Your task to perform on an android device: View the shopping cart on newegg. Add "logitech g903" to the cart on newegg Image 0: 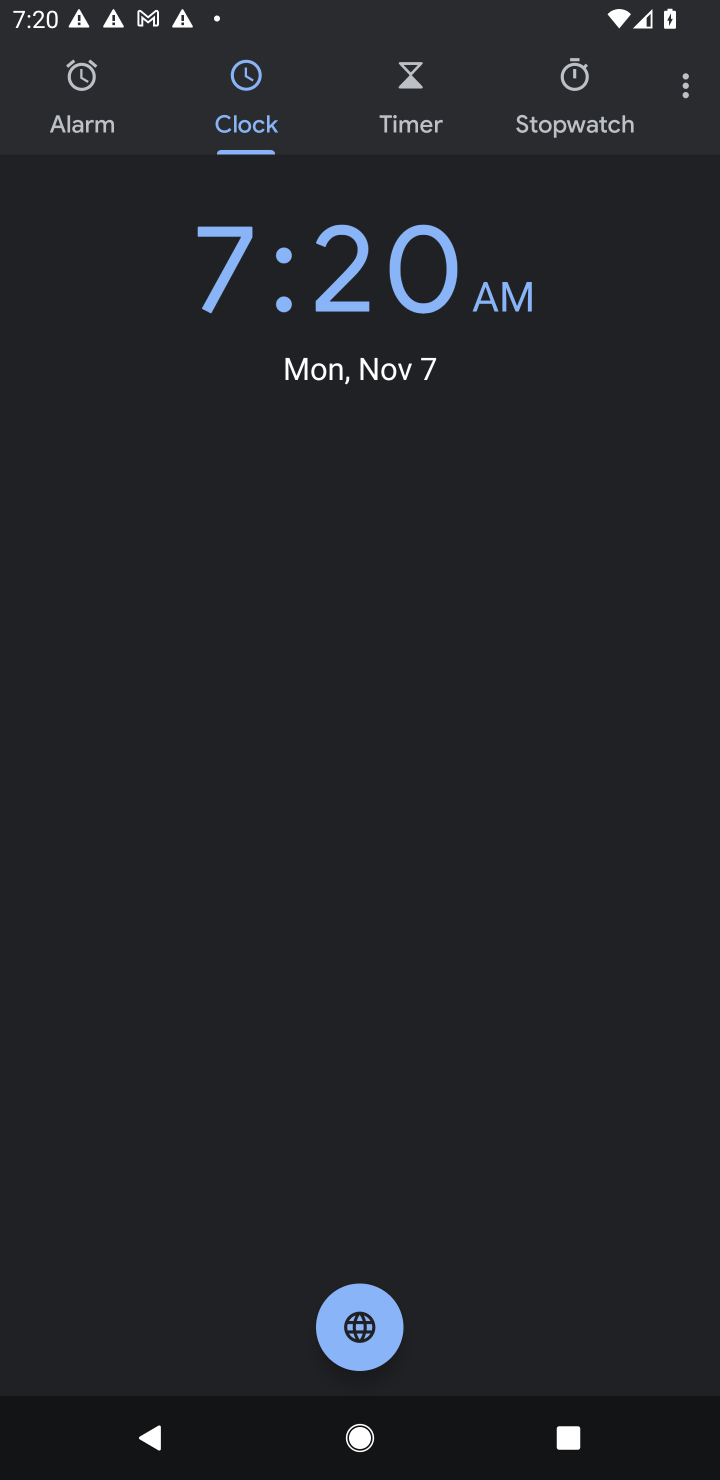
Step 0: press home button
Your task to perform on an android device: View the shopping cart on newegg. Add "logitech g903" to the cart on newegg Image 1: 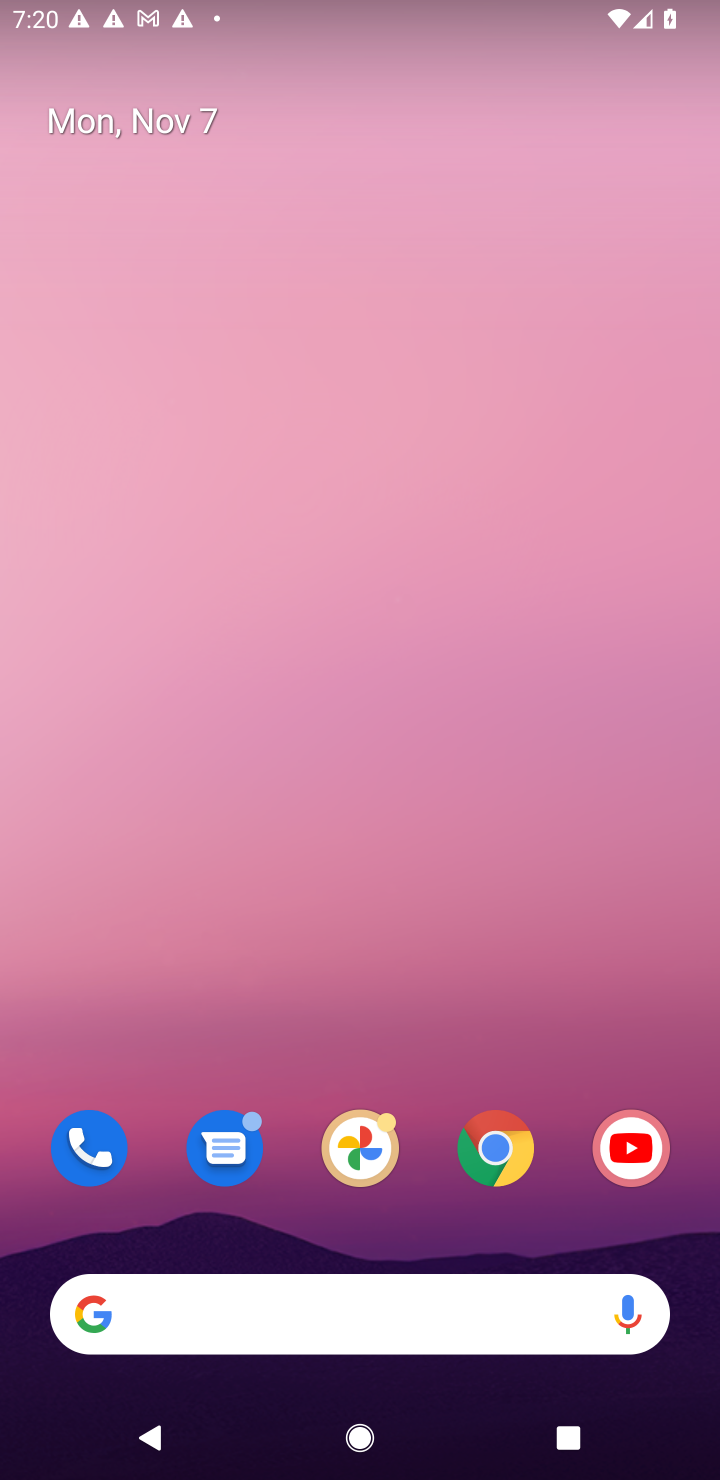
Step 1: click (513, 1151)
Your task to perform on an android device: View the shopping cart on newegg. Add "logitech g903" to the cart on newegg Image 2: 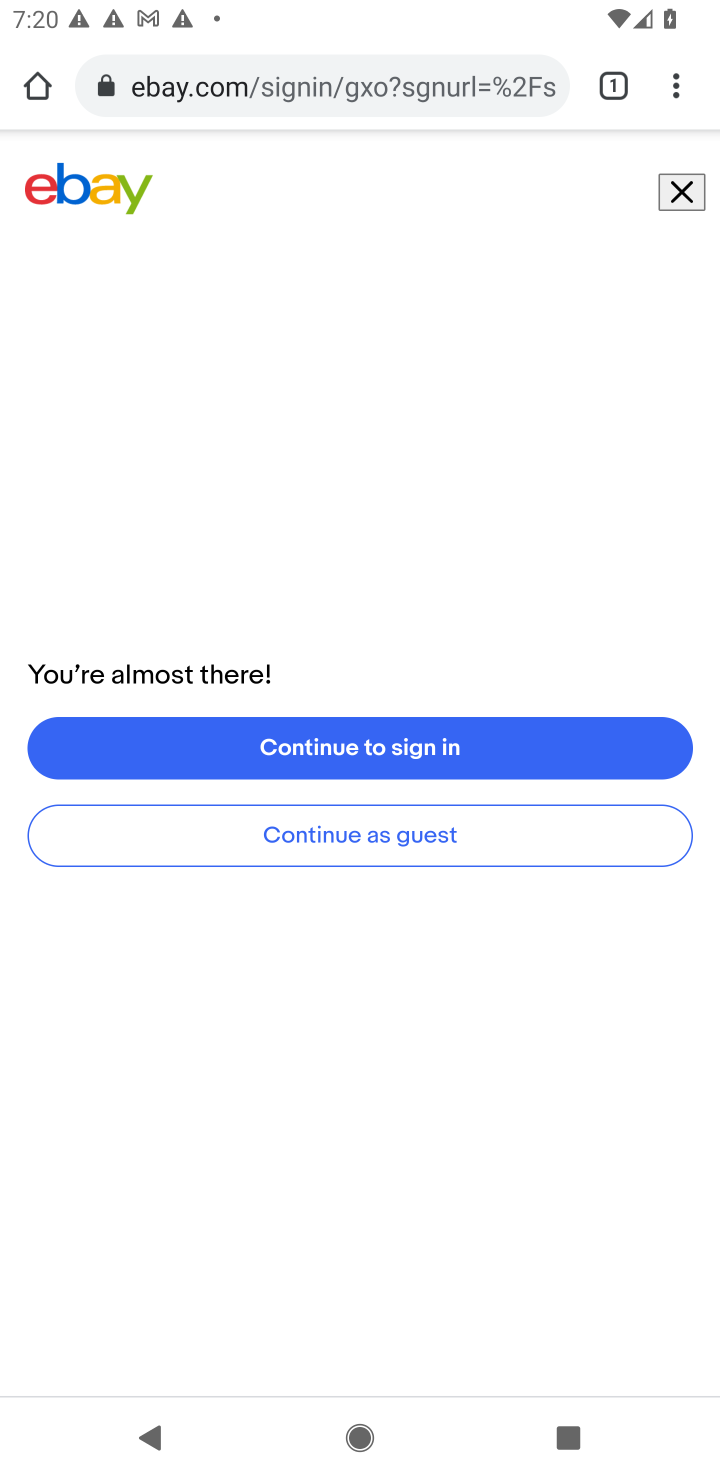
Step 2: click (394, 78)
Your task to perform on an android device: View the shopping cart on newegg. Add "logitech g903" to the cart on newegg Image 3: 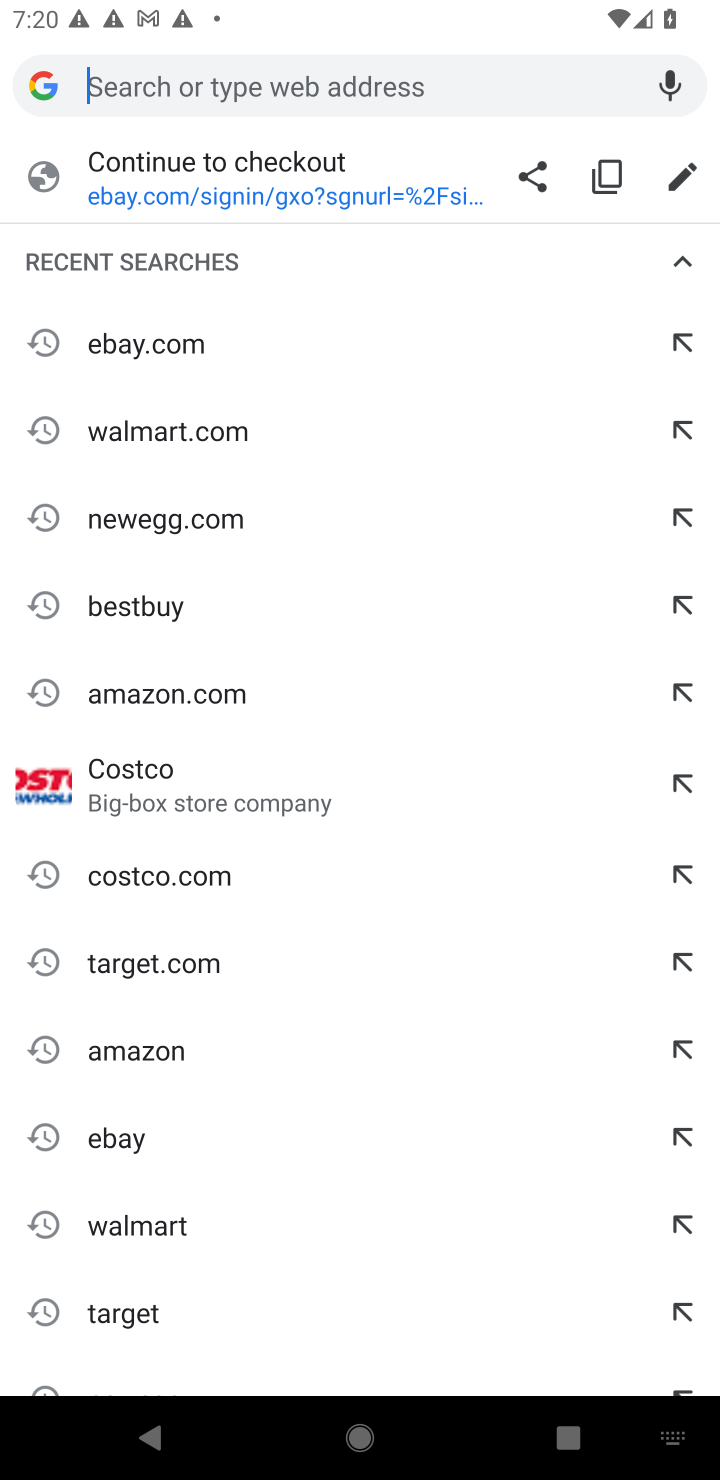
Step 3: click (207, 518)
Your task to perform on an android device: View the shopping cart on newegg. Add "logitech g903" to the cart on newegg Image 4: 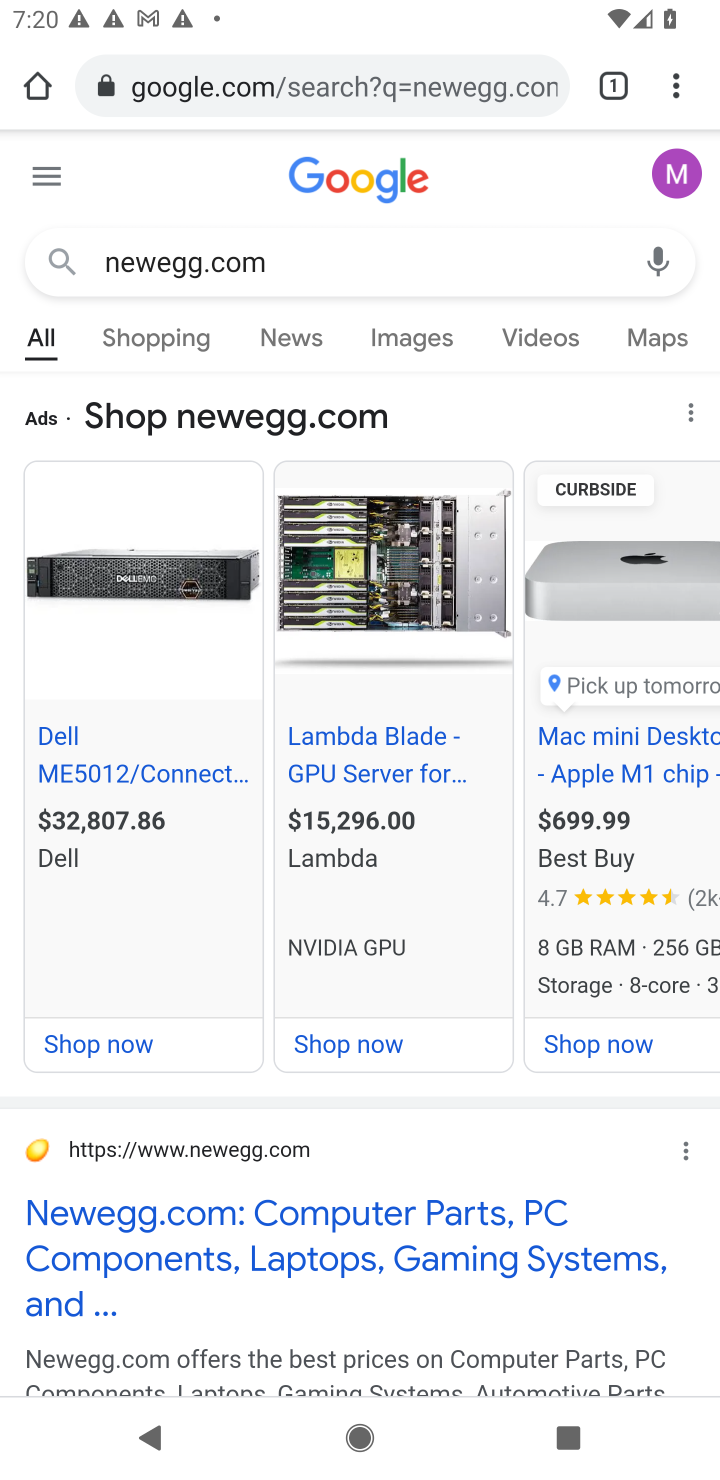
Step 4: click (236, 1148)
Your task to perform on an android device: View the shopping cart on newegg. Add "logitech g903" to the cart on newegg Image 5: 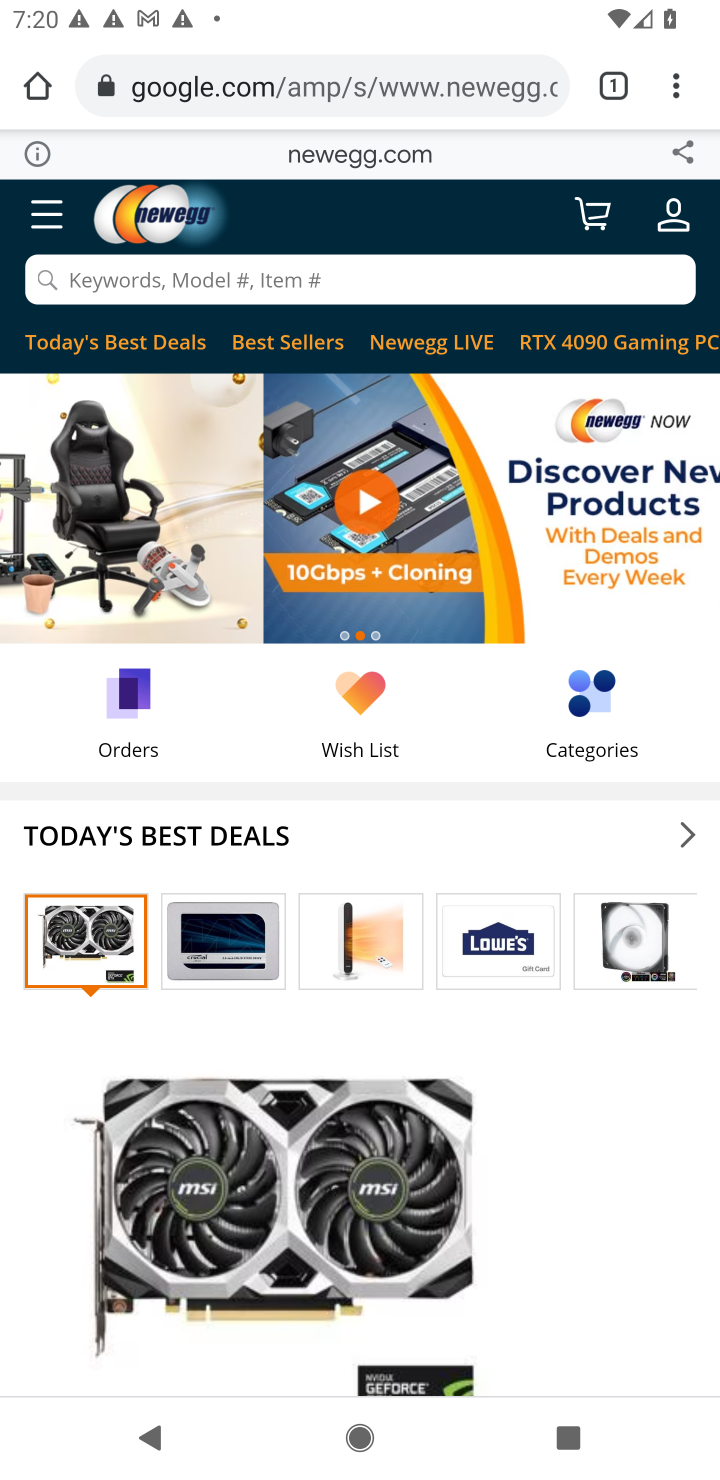
Step 5: click (442, 278)
Your task to perform on an android device: View the shopping cart on newegg. Add "logitech g903" to the cart on newegg Image 6: 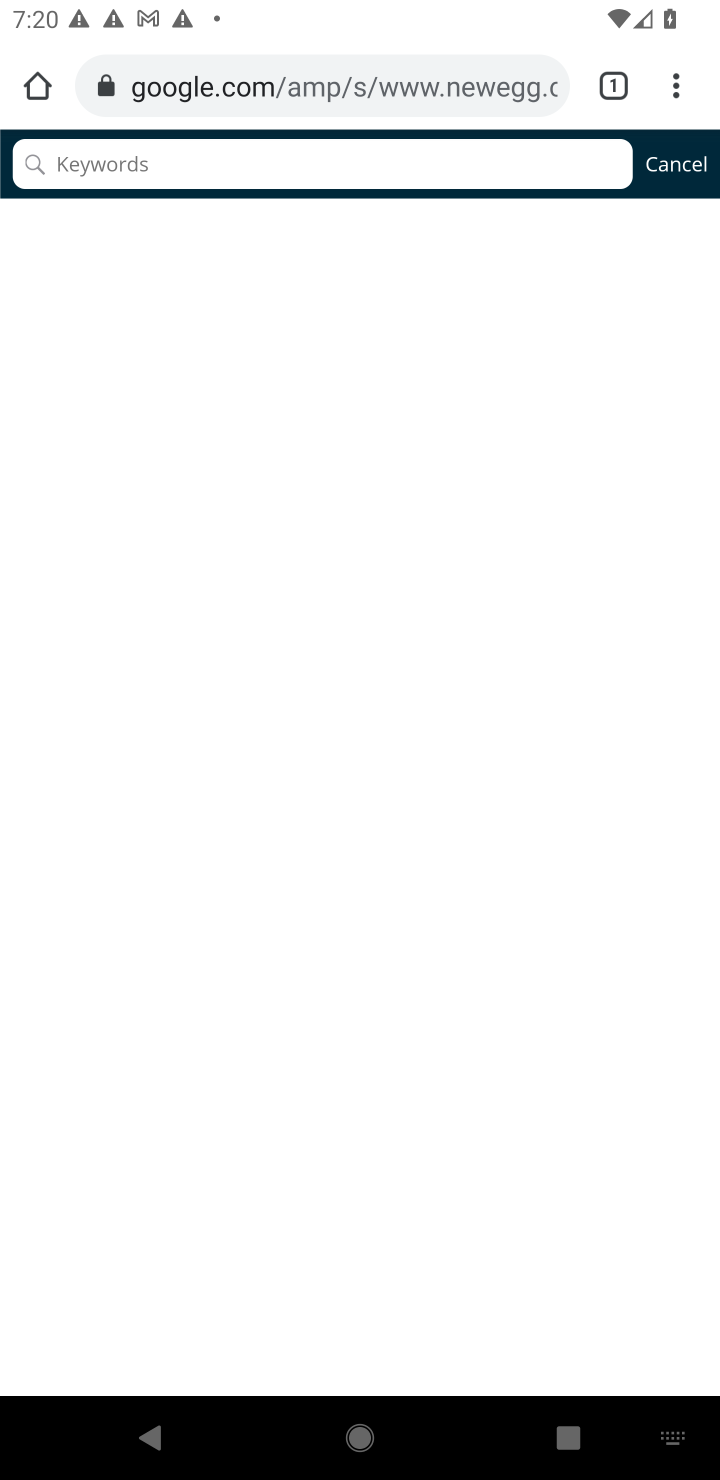
Step 6: click (370, 165)
Your task to perform on an android device: View the shopping cart on newegg. Add "logitech g903" to the cart on newegg Image 7: 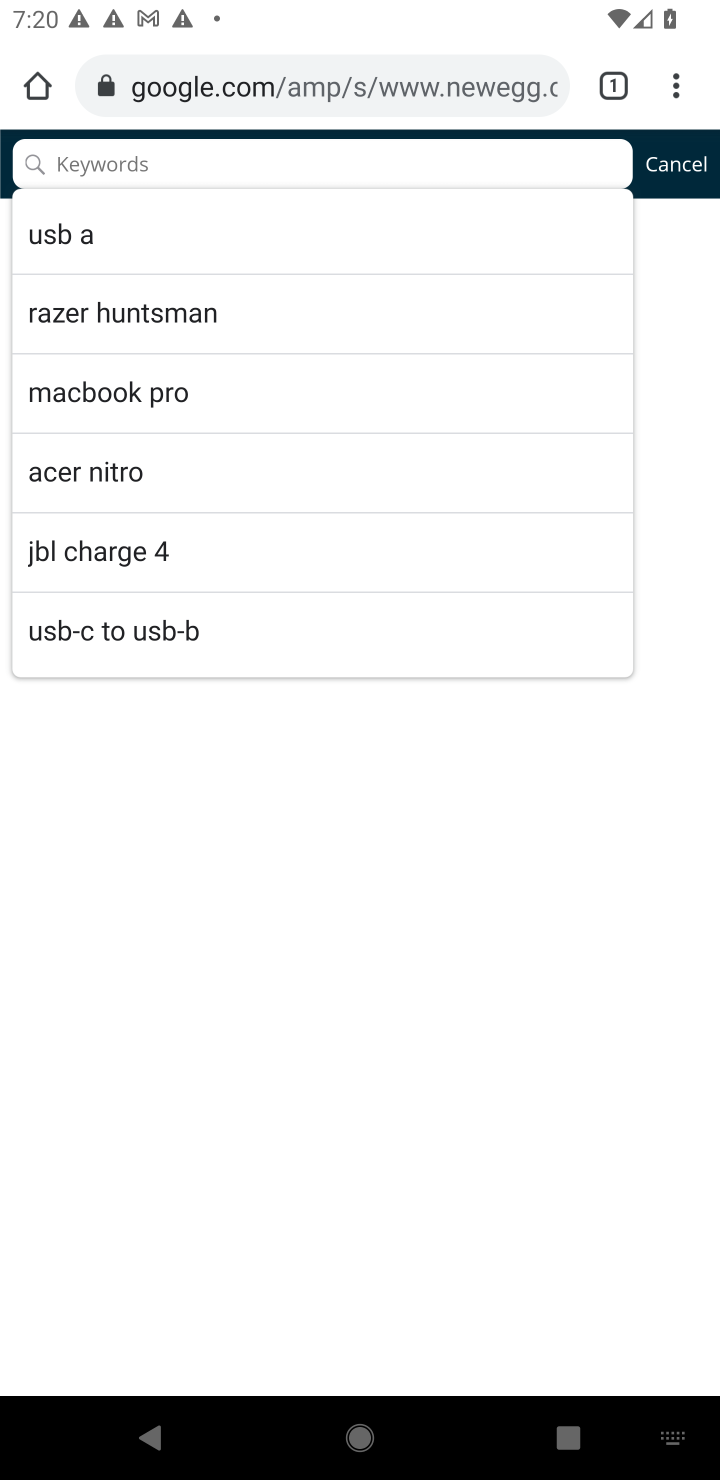
Step 7: type "logitech g903"
Your task to perform on an android device: View the shopping cart on newegg. Add "logitech g903" to the cart on newegg Image 8: 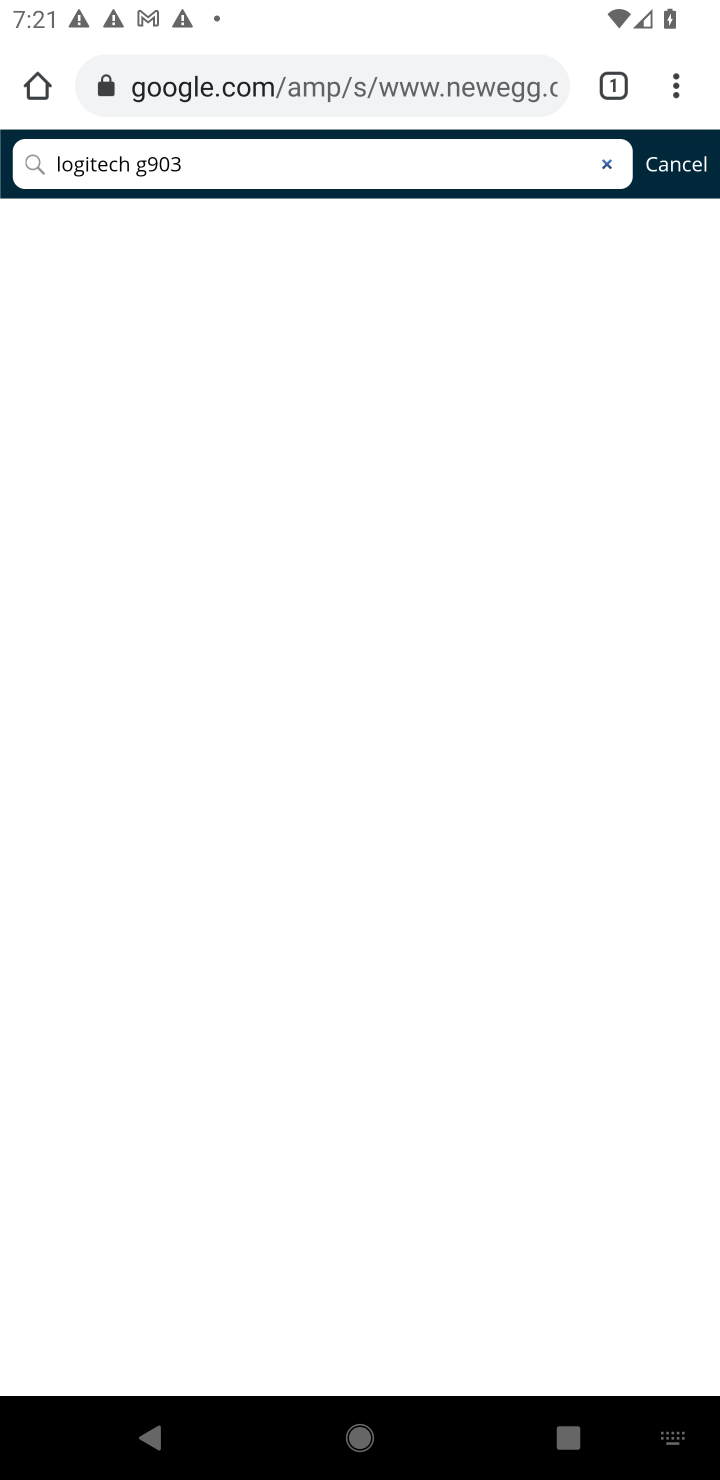
Step 8: click (468, 997)
Your task to perform on an android device: View the shopping cart on newegg. Add "logitech g903" to the cart on newegg Image 9: 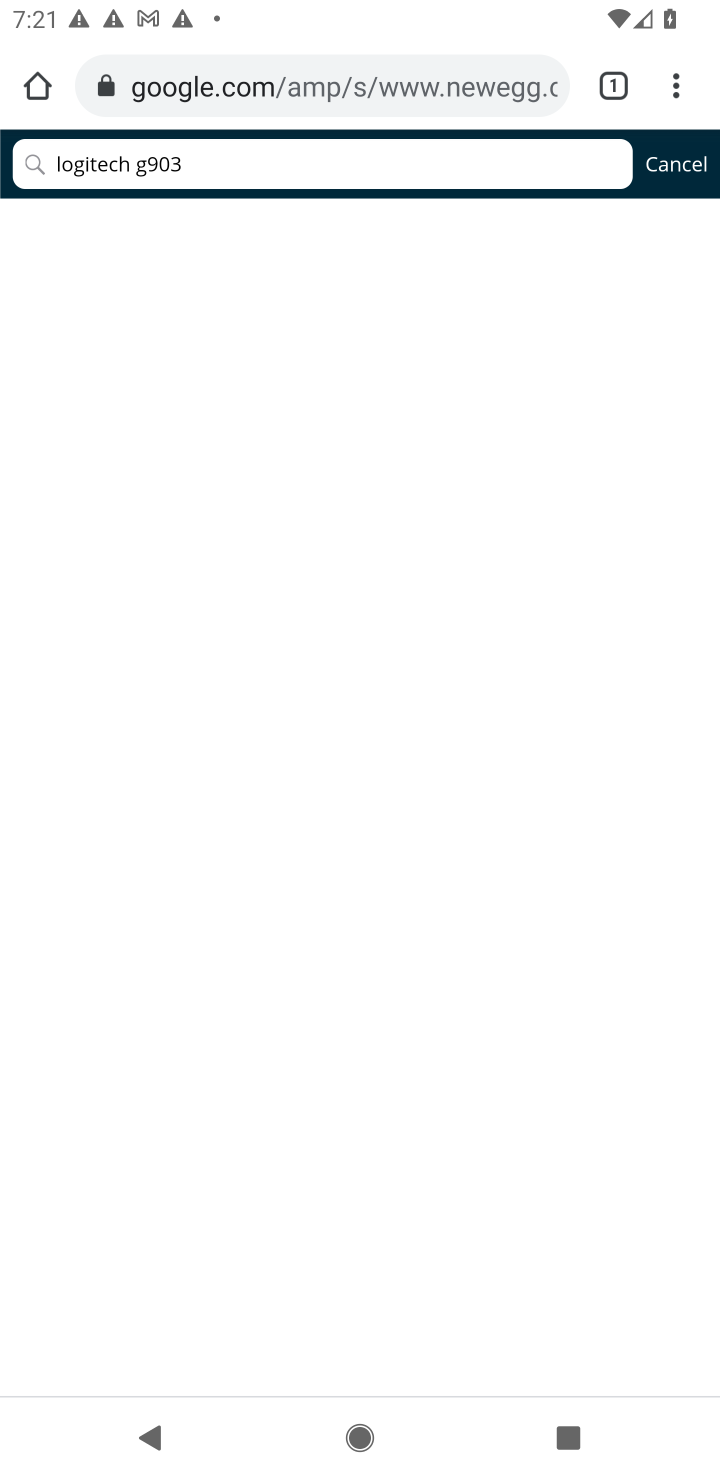
Step 9: task complete